Your task to perform on an android device: toggle priority inbox in the gmail app Image 0: 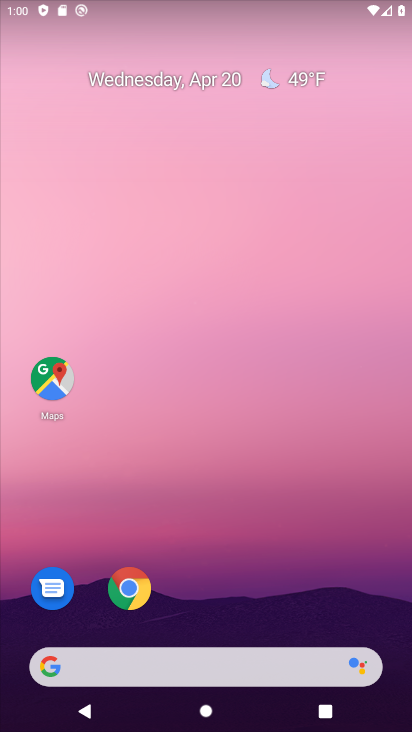
Step 0: drag from (119, 666) to (232, 182)
Your task to perform on an android device: toggle priority inbox in the gmail app Image 1: 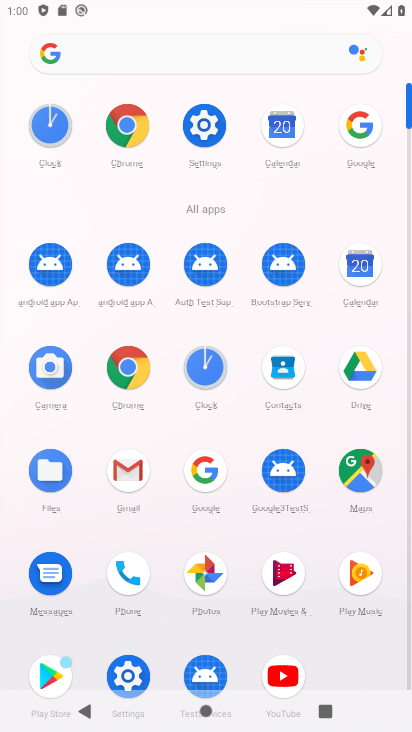
Step 1: click (130, 467)
Your task to perform on an android device: toggle priority inbox in the gmail app Image 2: 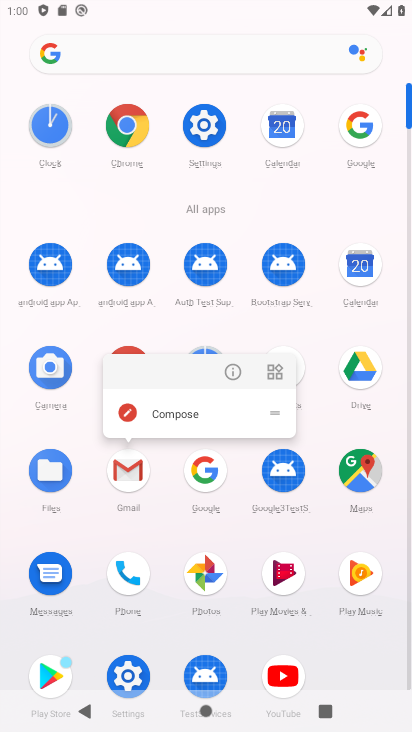
Step 2: click (123, 476)
Your task to perform on an android device: toggle priority inbox in the gmail app Image 3: 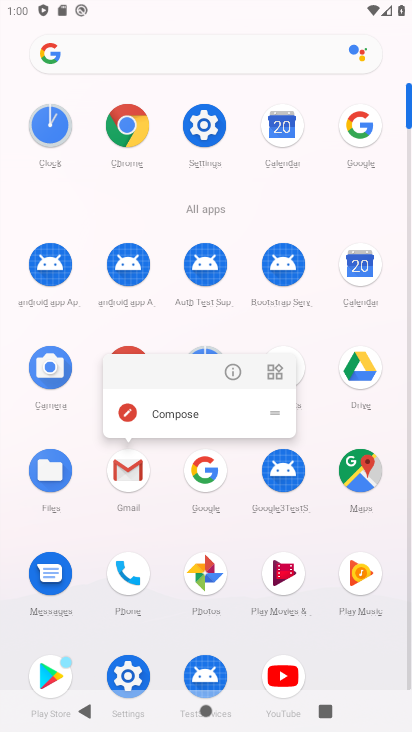
Step 3: click (126, 475)
Your task to perform on an android device: toggle priority inbox in the gmail app Image 4: 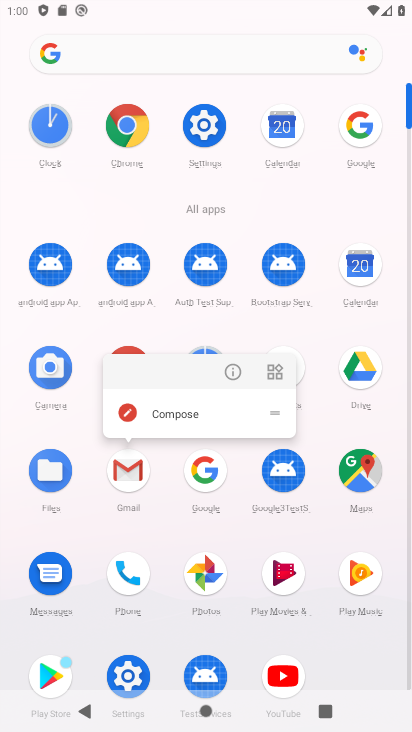
Step 4: click (124, 470)
Your task to perform on an android device: toggle priority inbox in the gmail app Image 5: 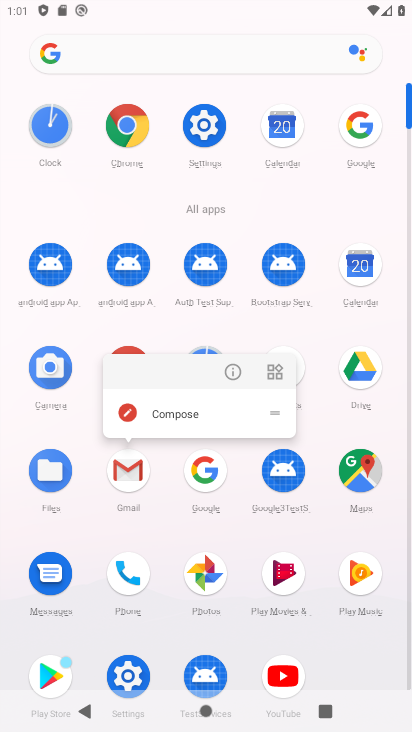
Step 5: click (128, 476)
Your task to perform on an android device: toggle priority inbox in the gmail app Image 6: 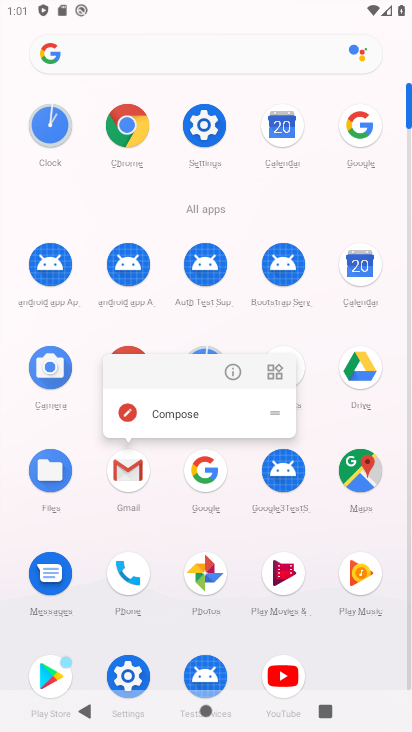
Step 6: click (127, 483)
Your task to perform on an android device: toggle priority inbox in the gmail app Image 7: 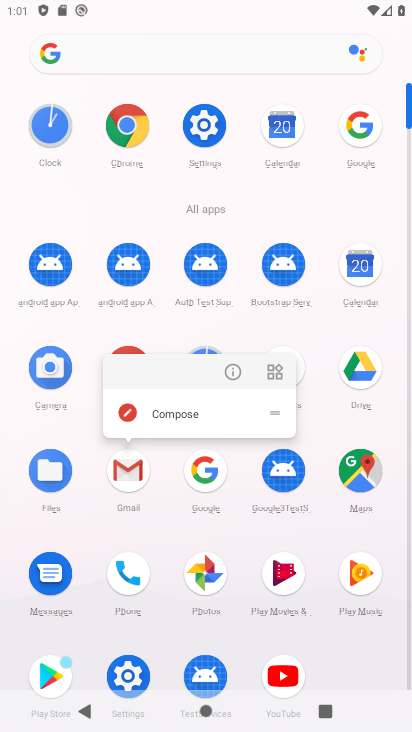
Step 7: click (130, 476)
Your task to perform on an android device: toggle priority inbox in the gmail app Image 8: 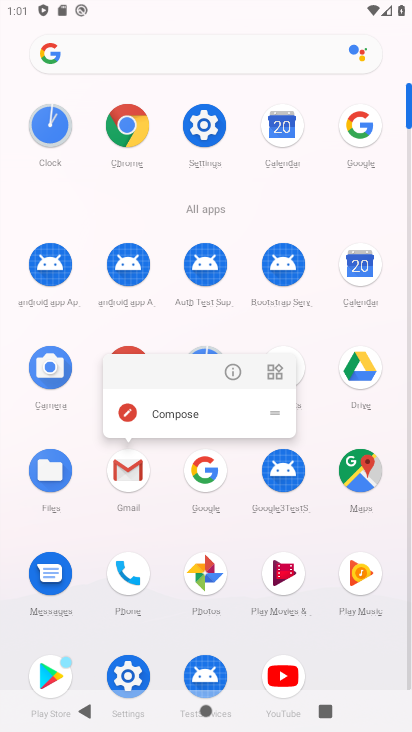
Step 8: click (125, 478)
Your task to perform on an android device: toggle priority inbox in the gmail app Image 9: 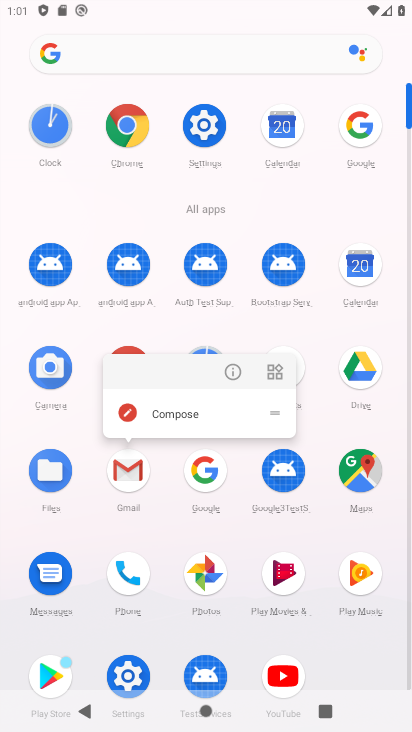
Step 9: click (125, 472)
Your task to perform on an android device: toggle priority inbox in the gmail app Image 10: 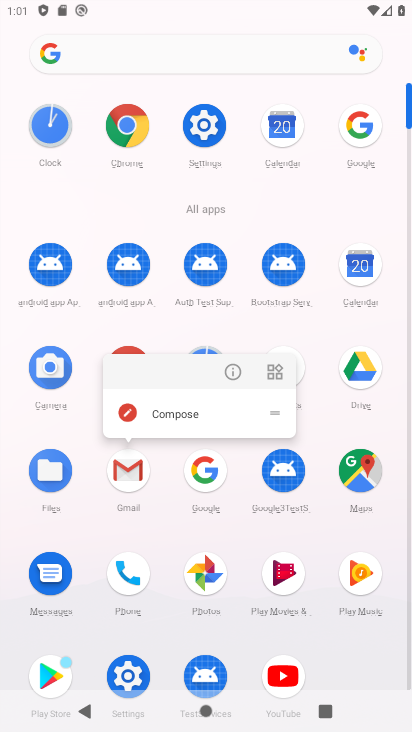
Step 10: click (122, 480)
Your task to perform on an android device: toggle priority inbox in the gmail app Image 11: 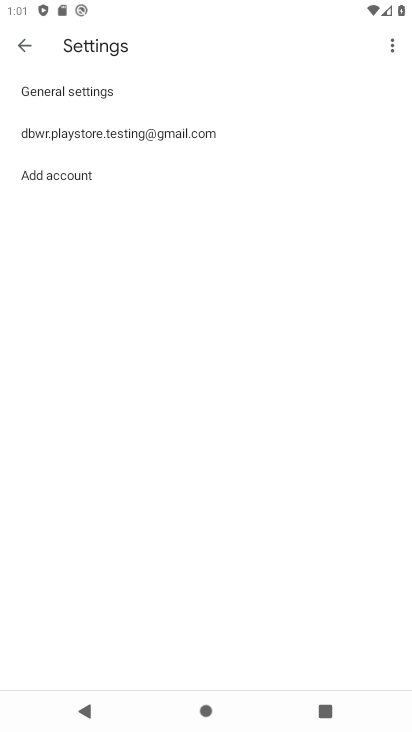
Step 11: click (83, 133)
Your task to perform on an android device: toggle priority inbox in the gmail app Image 12: 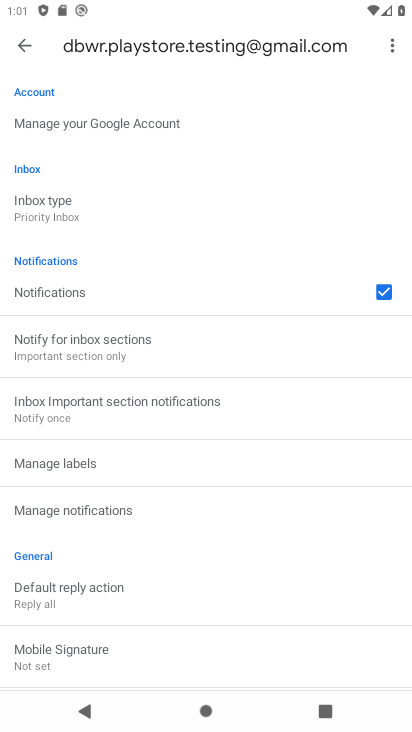
Step 12: click (60, 205)
Your task to perform on an android device: toggle priority inbox in the gmail app Image 13: 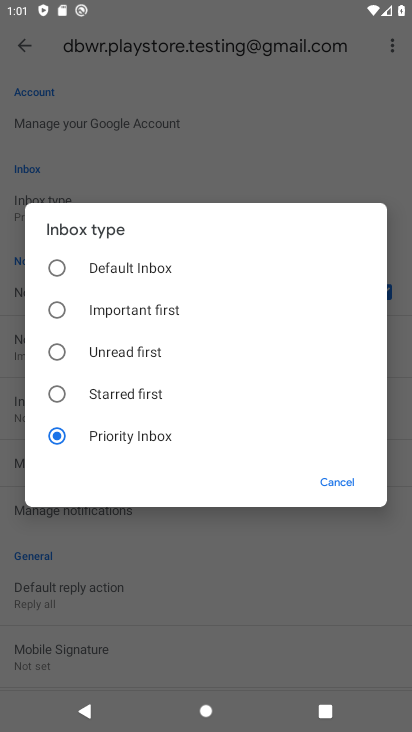
Step 13: click (56, 269)
Your task to perform on an android device: toggle priority inbox in the gmail app Image 14: 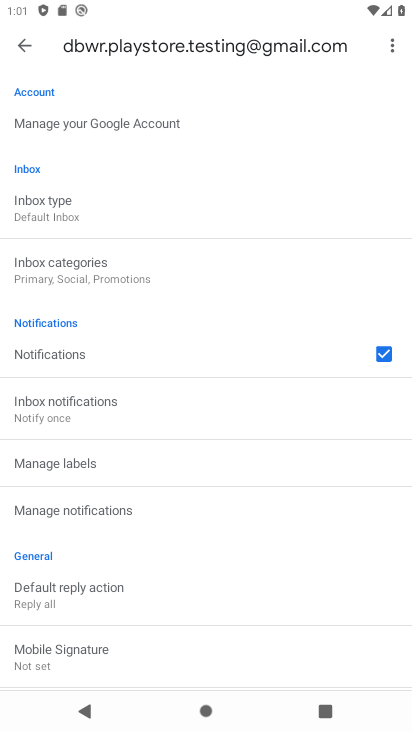
Step 14: task complete